Your task to perform on an android device: What is the recent news? Image 0: 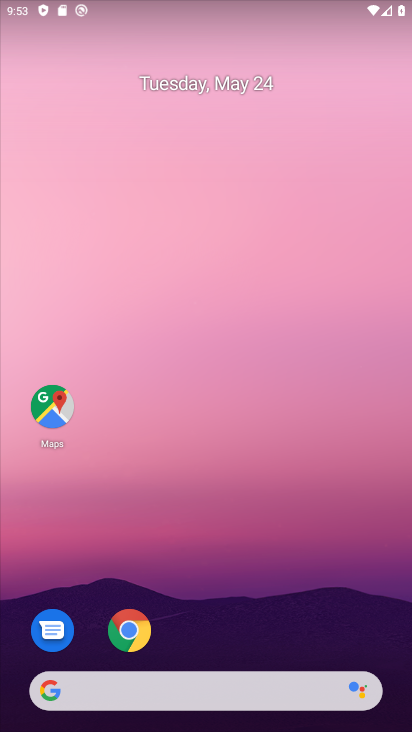
Step 0: drag from (6, 288) to (410, 292)
Your task to perform on an android device: What is the recent news? Image 1: 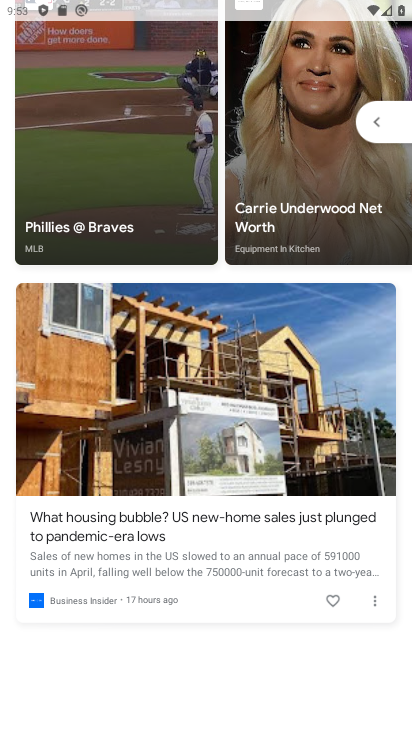
Step 1: task complete